Your task to perform on an android device: Open Youtube and go to "Your channel" Image 0: 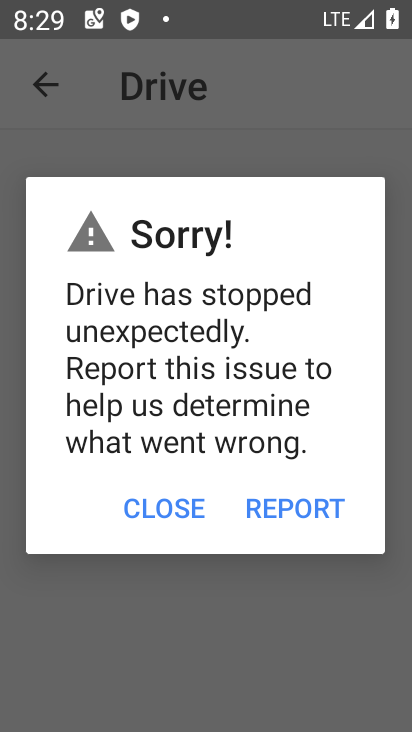
Step 0: press home button
Your task to perform on an android device: Open Youtube and go to "Your channel" Image 1: 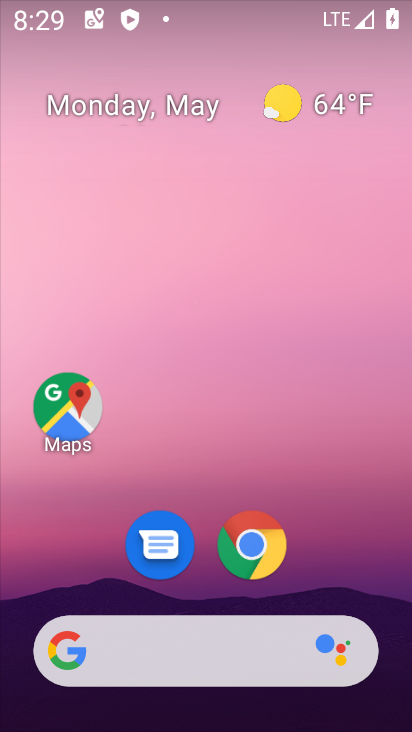
Step 1: drag from (199, 660) to (306, 66)
Your task to perform on an android device: Open Youtube and go to "Your channel" Image 2: 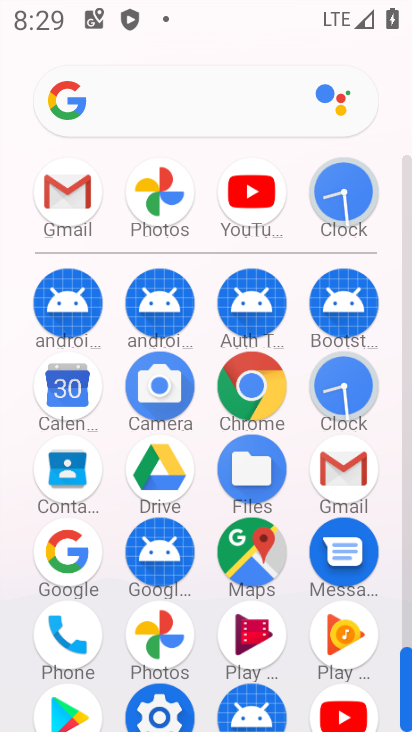
Step 2: click (236, 204)
Your task to perform on an android device: Open Youtube and go to "Your channel" Image 3: 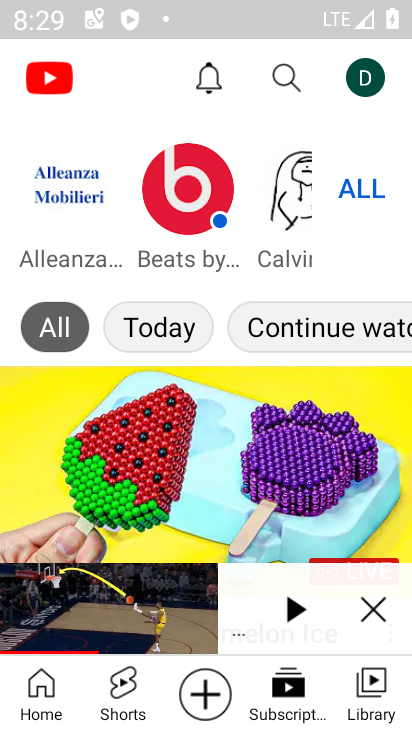
Step 3: click (361, 84)
Your task to perform on an android device: Open Youtube and go to "Your channel" Image 4: 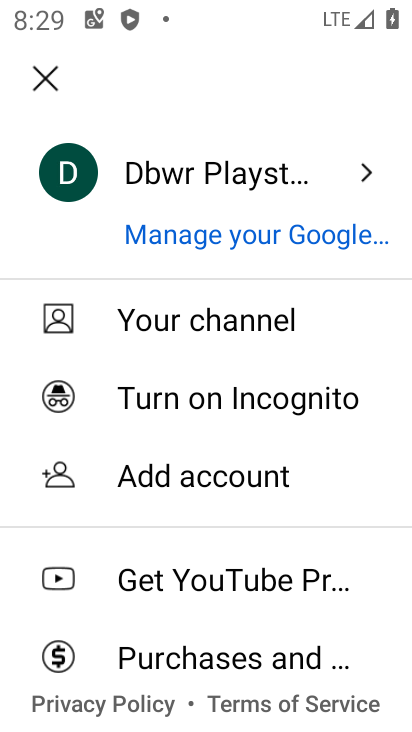
Step 4: click (210, 319)
Your task to perform on an android device: Open Youtube and go to "Your channel" Image 5: 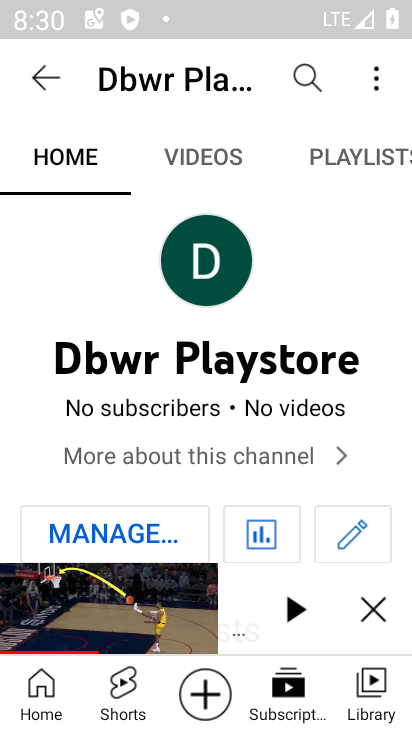
Step 5: task complete